Your task to perform on an android device: add a label to a message in the gmail app Image 0: 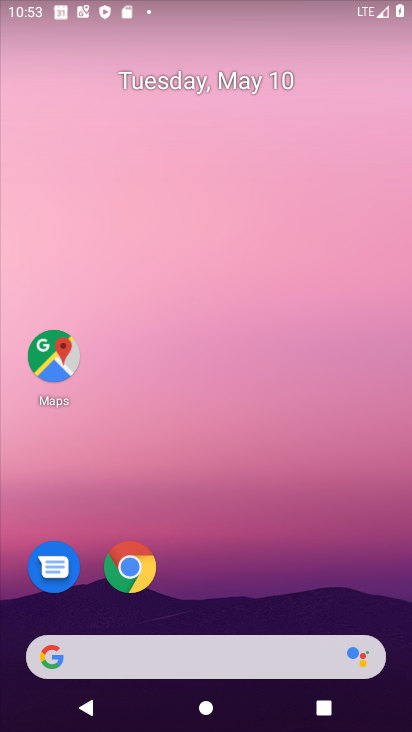
Step 0: press home button
Your task to perform on an android device: add a label to a message in the gmail app Image 1: 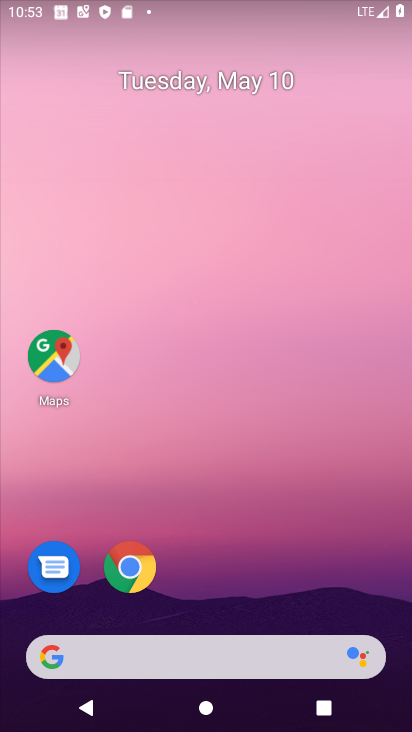
Step 1: drag from (9, 634) to (205, 124)
Your task to perform on an android device: add a label to a message in the gmail app Image 2: 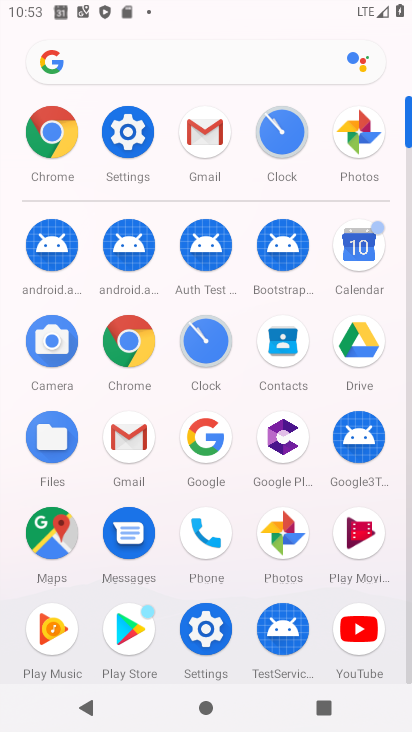
Step 2: click (112, 451)
Your task to perform on an android device: add a label to a message in the gmail app Image 3: 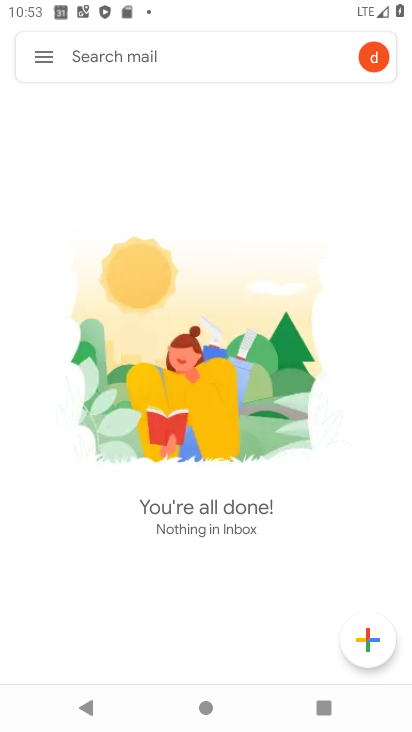
Step 3: click (34, 59)
Your task to perform on an android device: add a label to a message in the gmail app Image 4: 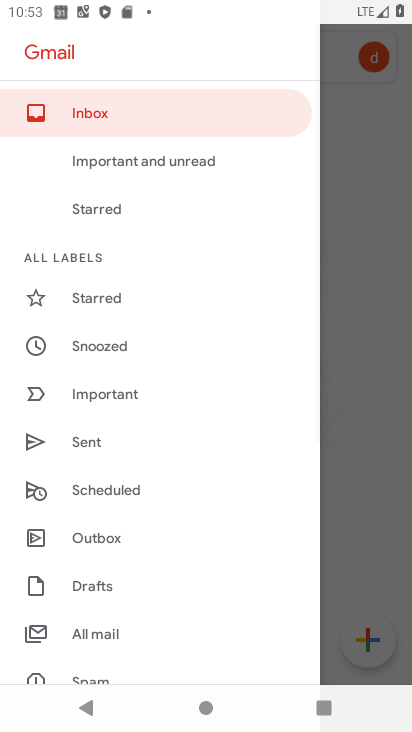
Step 4: click (79, 110)
Your task to perform on an android device: add a label to a message in the gmail app Image 5: 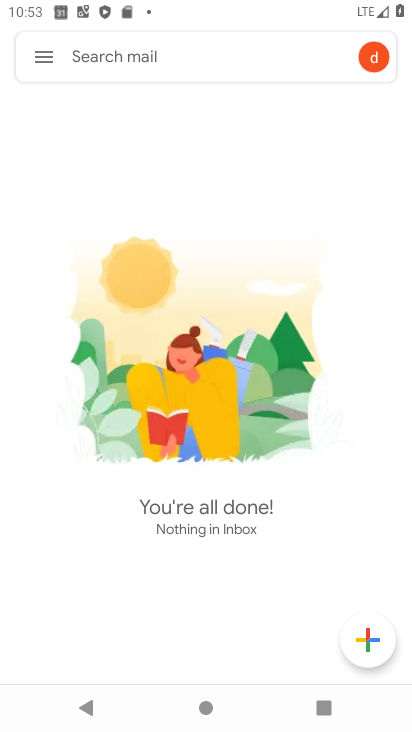
Step 5: task complete